Your task to perform on an android device: Open notification settings Image 0: 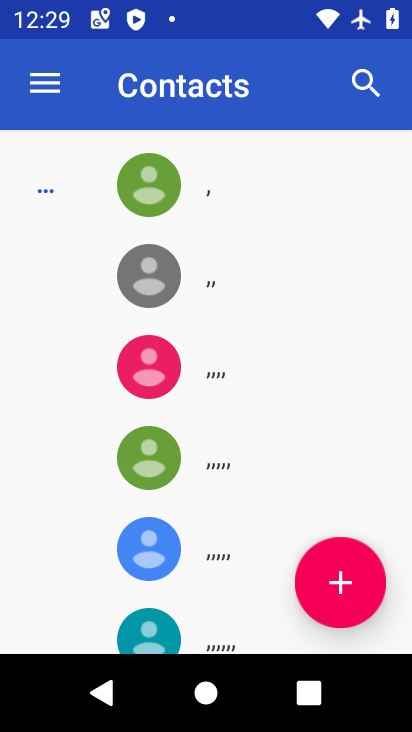
Step 0: drag from (213, 383) to (261, 169)
Your task to perform on an android device: Open notification settings Image 1: 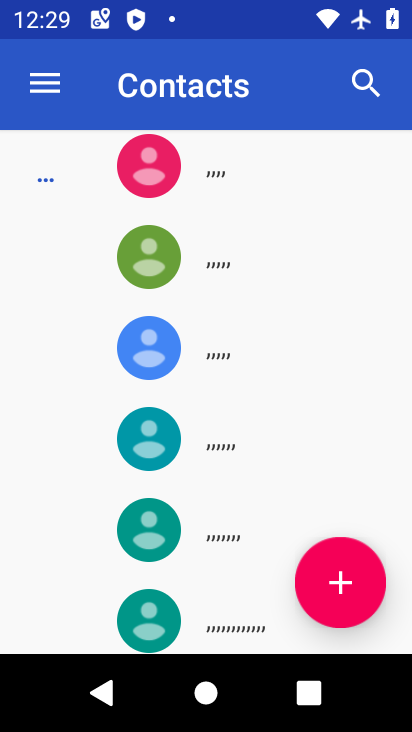
Step 1: press home button
Your task to perform on an android device: Open notification settings Image 2: 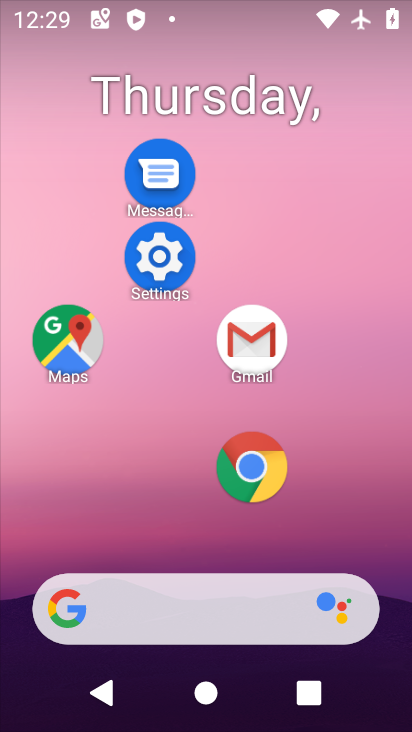
Step 2: click (167, 266)
Your task to perform on an android device: Open notification settings Image 3: 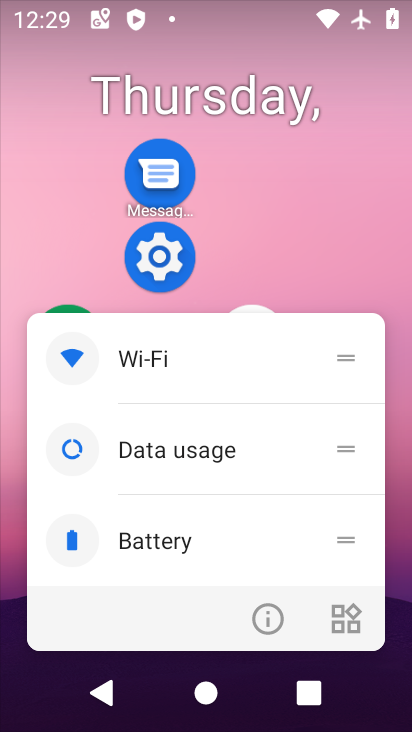
Step 3: click (246, 598)
Your task to perform on an android device: Open notification settings Image 4: 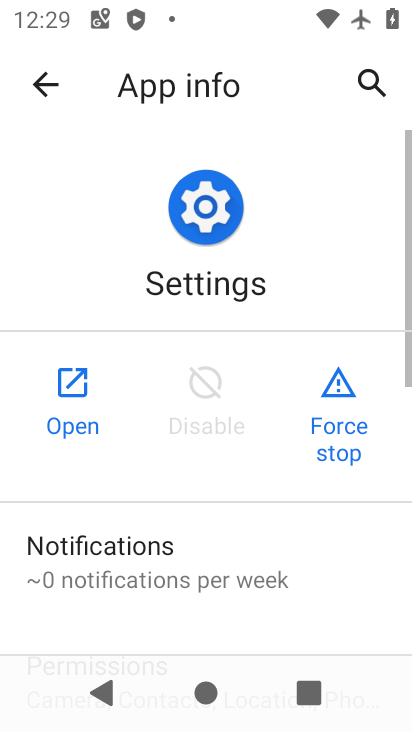
Step 4: click (89, 384)
Your task to perform on an android device: Open notification settings Image 5: 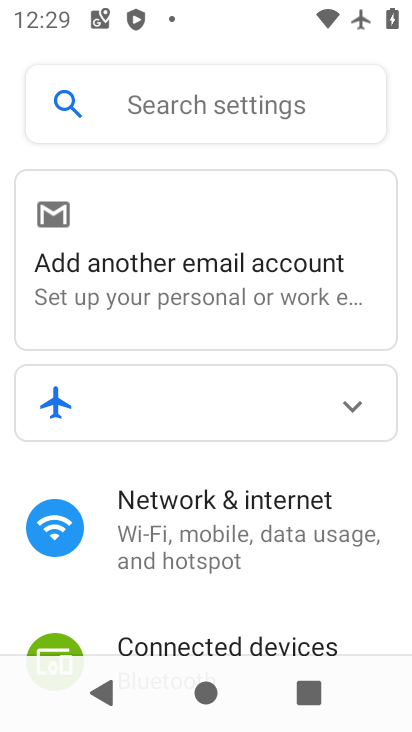
Step 5: click (198, 534)
Your task to perform on an android device: Open notification settings Image 6: 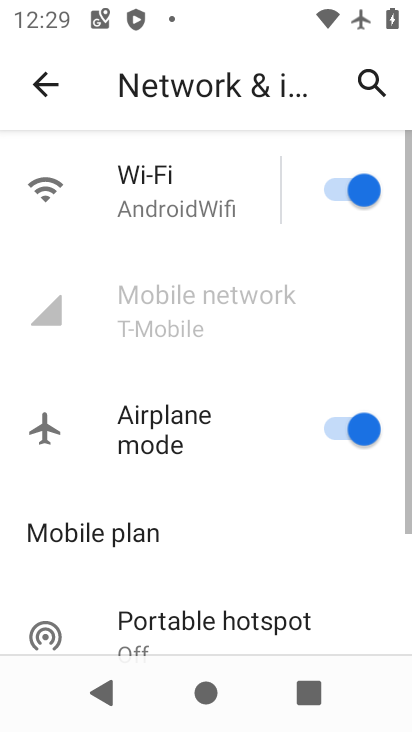
Step 6: drag from (197, 534) to (267, 78)
Your task to perform on an android device: Open notification settings Image 7: 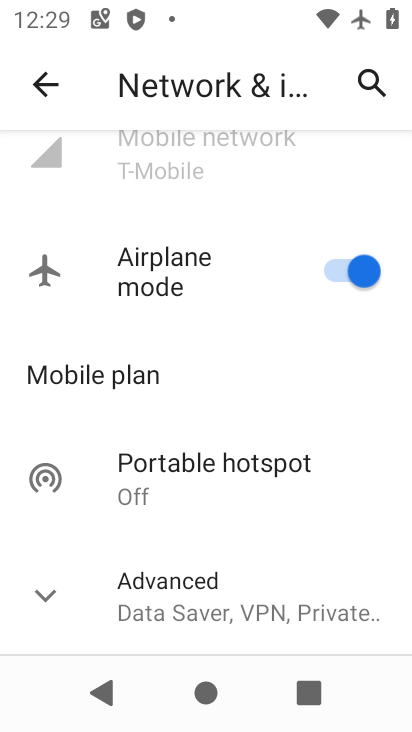
Step 7: drag from (230, 417) to (235, 557)
Your task to perform on an android device: Open notification settings Image 8: 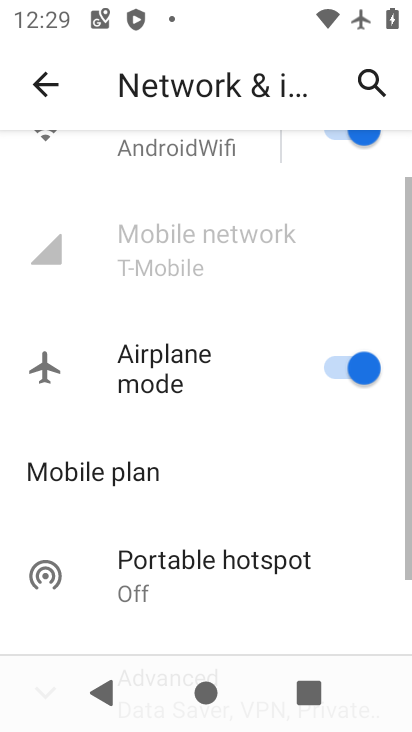
Step 8: click (45, 78)
Your task to perform on an android device: Open notification settings Image 9: 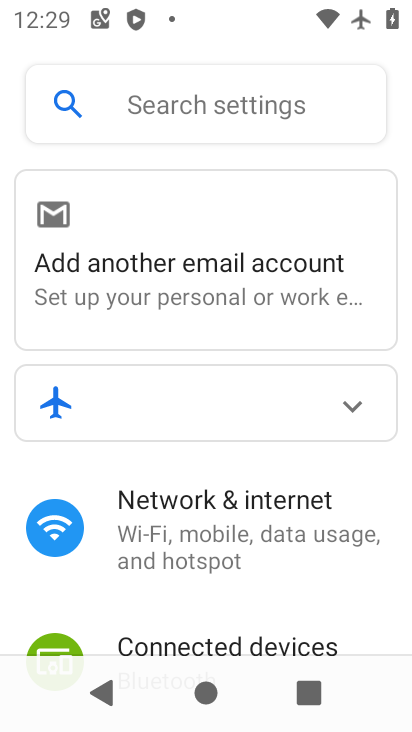
Step 9: drag from (191, 601) to (250, 145)
Your task to perform on an android device: Open notification settings Image 10: 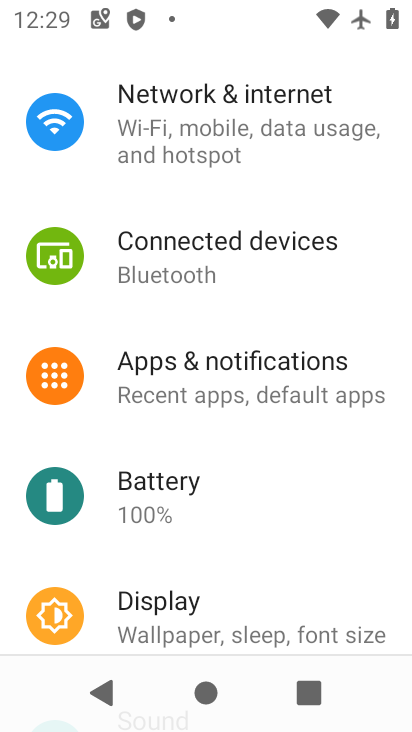
Step 10: click (195, 362)
Your task to perform on an android device: Open notification settings Image 11: 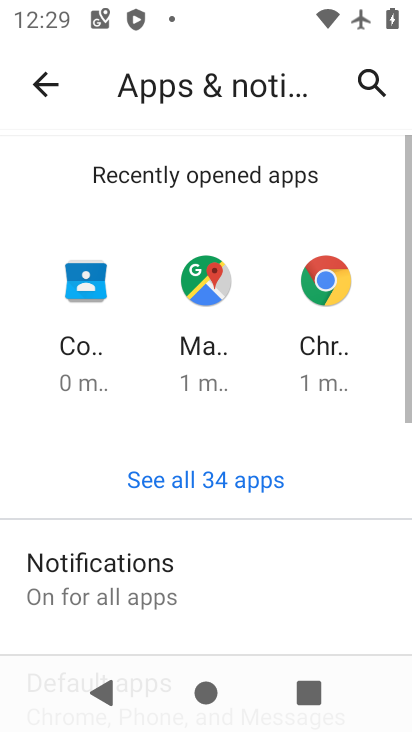
Step 11: drag from (214, 524) to (335, 115)
Your task to perform on an android device: Open notification settings Image 12: 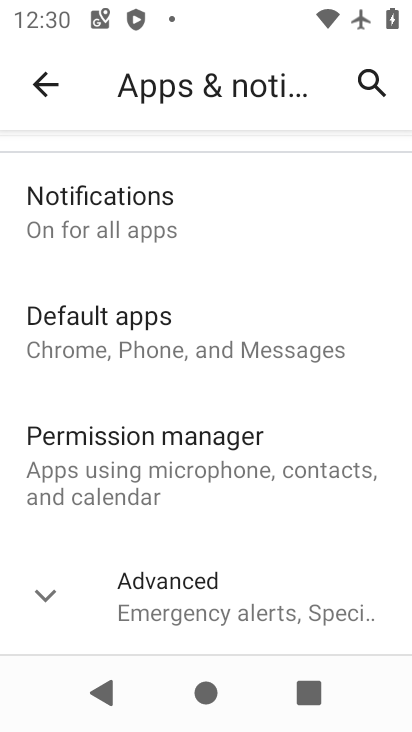
Step 12: click (185, 212)
Your task to perform on an android device: Open notification settings Image 13: 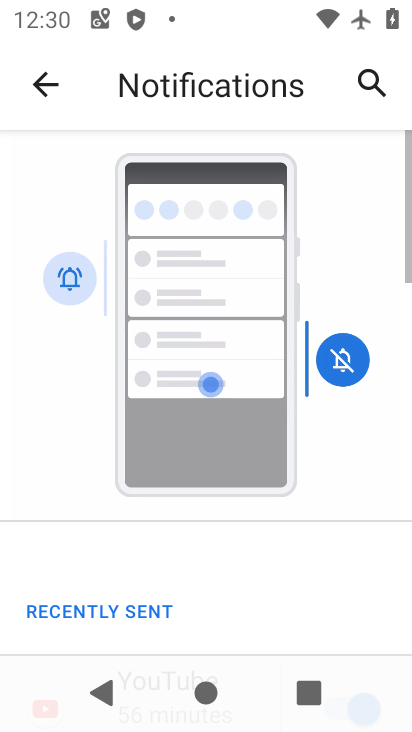
Step 13: task complete